Your task to perform on an android device: What's on my calendar tomorrow? Image 0: 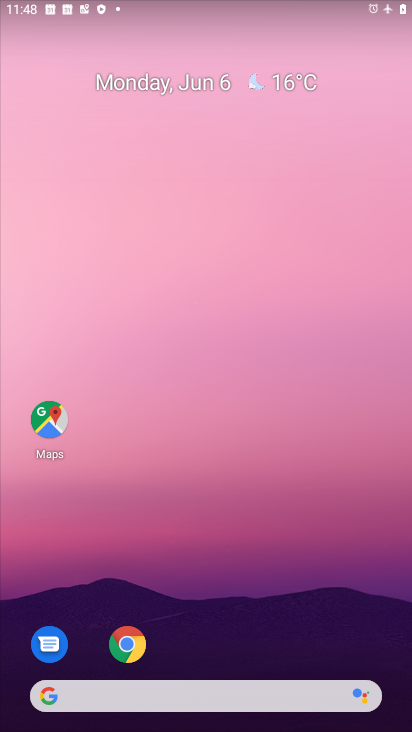
Step 0: drag from (195, 621) to (243, 147)
Your task to perform on an android device: What's on my calendar tomorrow? Image 1: 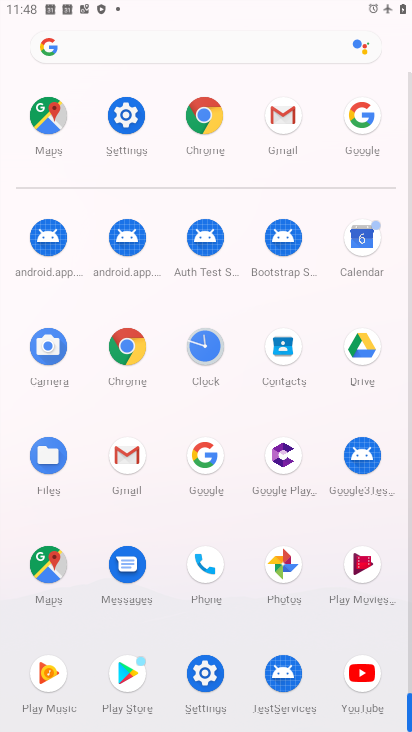
Step 1: click (370, 244)
Your task to perform on an android device: What's on my calendar tomorrow? Image 2: 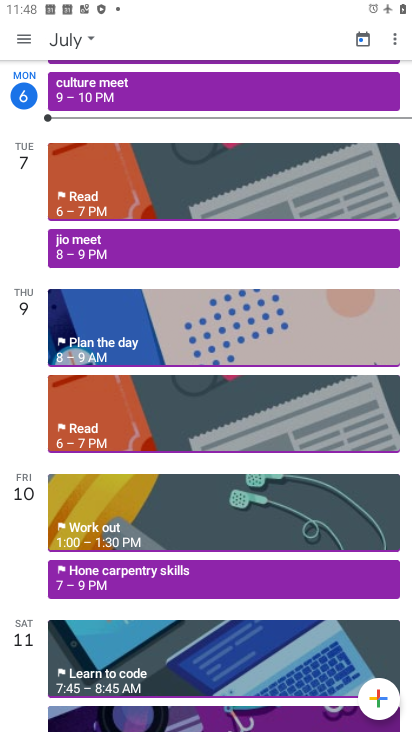
Step 2: click (82, 33)
Your task to perform on an android device: What's on my calendar tomorrow? Image 3: 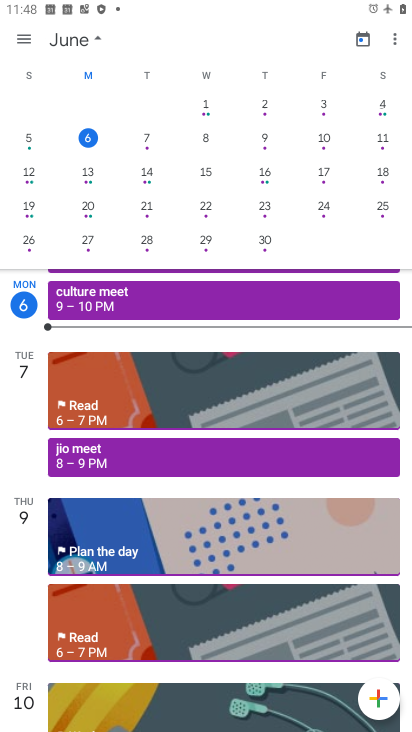
Step 3: click (145, 146)
Your task to perform on an android device: What's on my calendar tomorrow? Image 4: 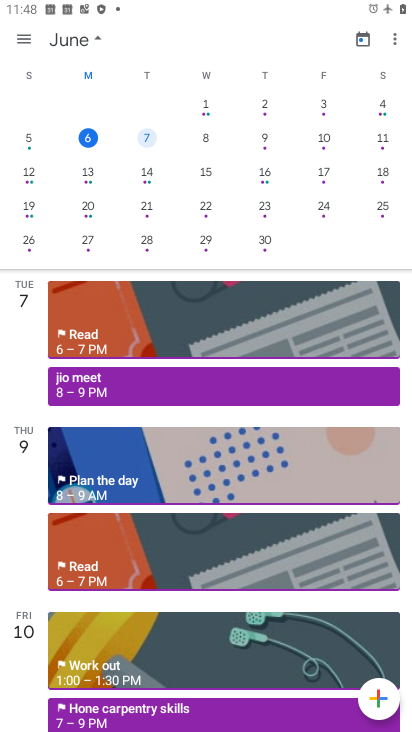
Step 4: click (83, 37)
Your task to perform on an android device: What's on my calendar tomorrow? Image 5: 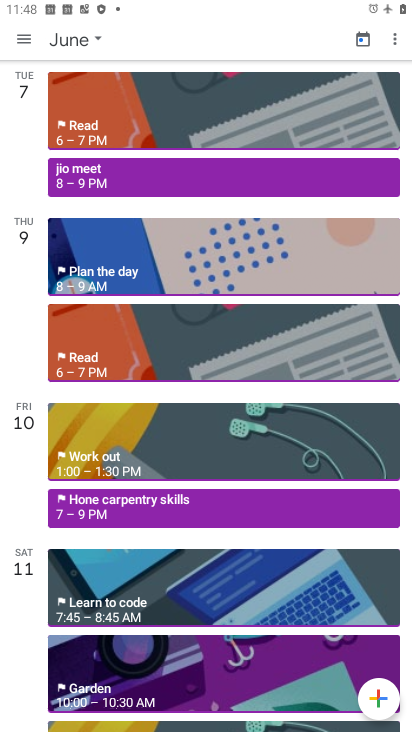
Step 5: click (229, 138)
Your task to perform on an android device: What's on my calendar tomorrow? Image 6: 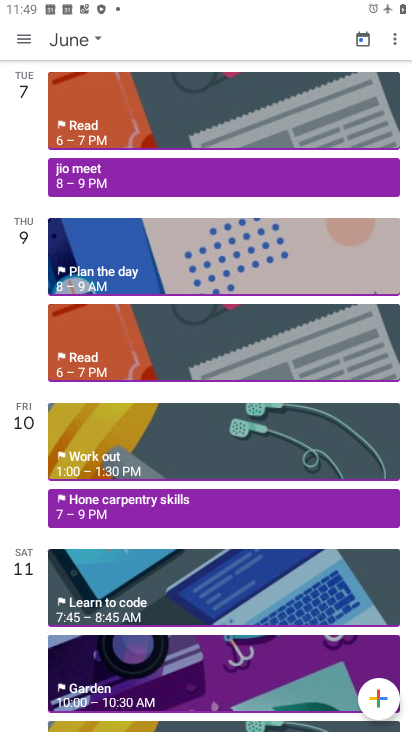
Step 6: click (213, 124)
Your task to perform on an android device: What's on my calendar tomorrow? Image 7: 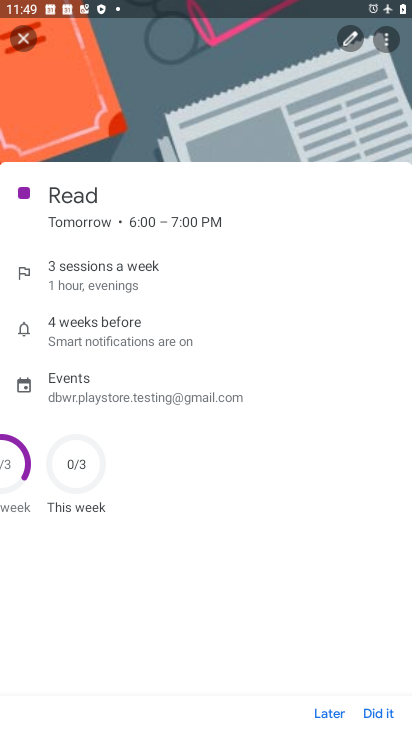
Step 7: task complete